Your task to perform on an android device: Open the Play Movies app and select the watchlist tab. Image 0: 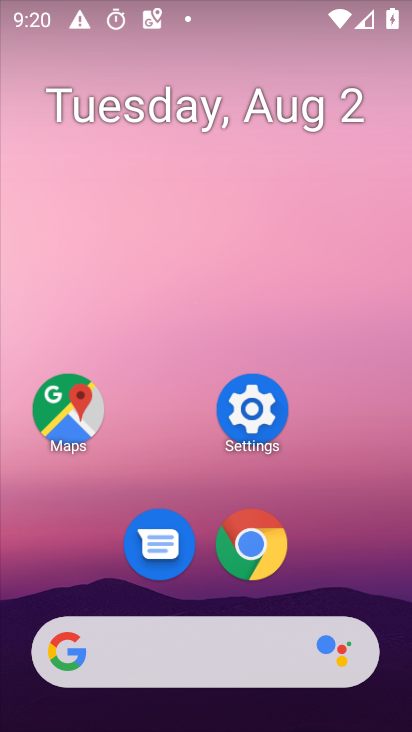
Step 0: drag from (218, 601) to (376, 45)
Your task to perform on an android device: Open the Play Movies app and select the watchlist tab. Image 1: 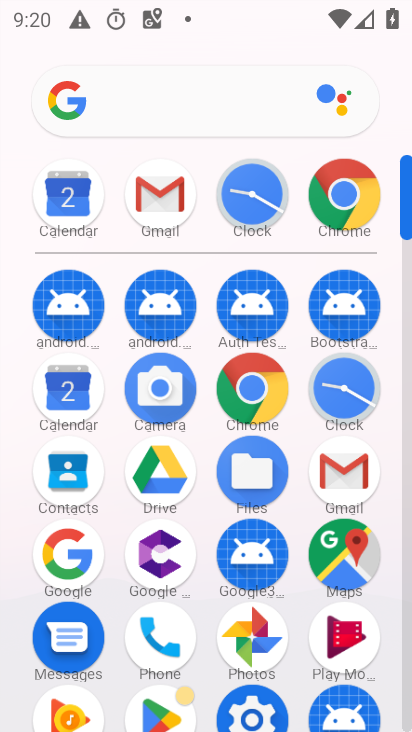
Step 1: click (349, 631)
Your task to perform on an android device: Open the Play Movies app and select the watchlist tab. Image 2: 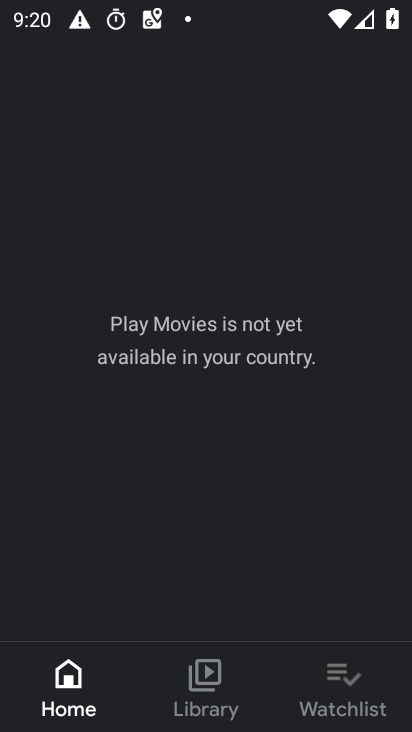
Step 2: click (348, 707)
Your task to perform on an android device: Open the Play Movies app and select the watchlist tab. Image 3: 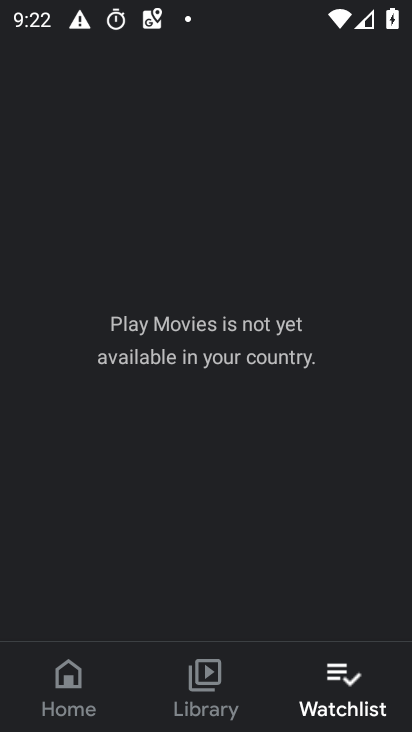
Step 3: task complete